Your task to perform on an android device: allow cookies in the chrome app Image 0: 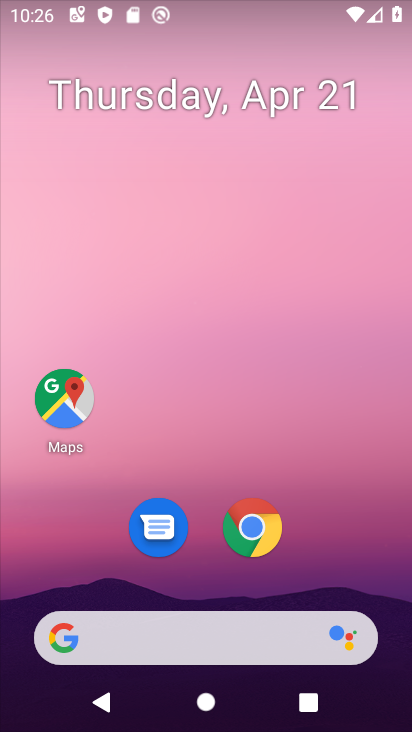
Step 0: drag from (337, 543) to (327, 50)
Your task to perform on an android device: allow cookies in the chrome app Image 1: 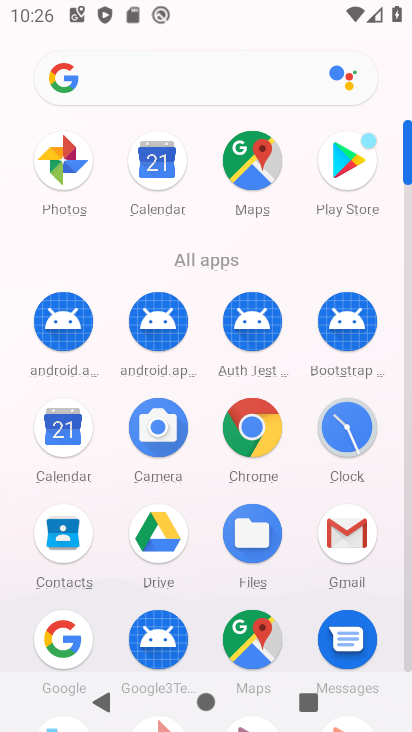
Step 1: click (267, 452)
Your task to perform on an android device: allow cookies in the chrome app Image 2: 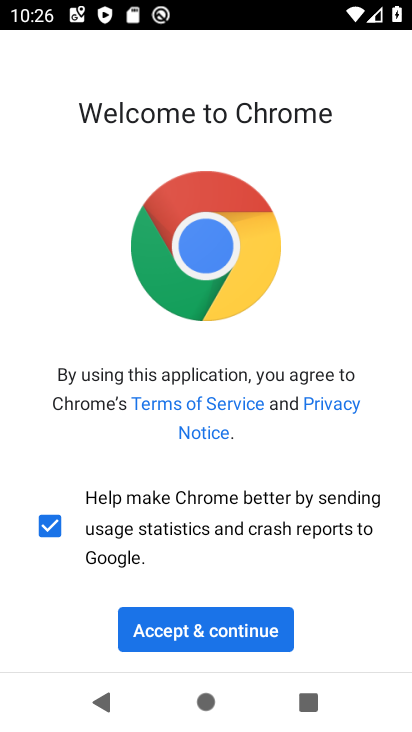
Step 2: click (199, 632)
Your task to perform on an android device: allow cookies in the chrome app Image 3: 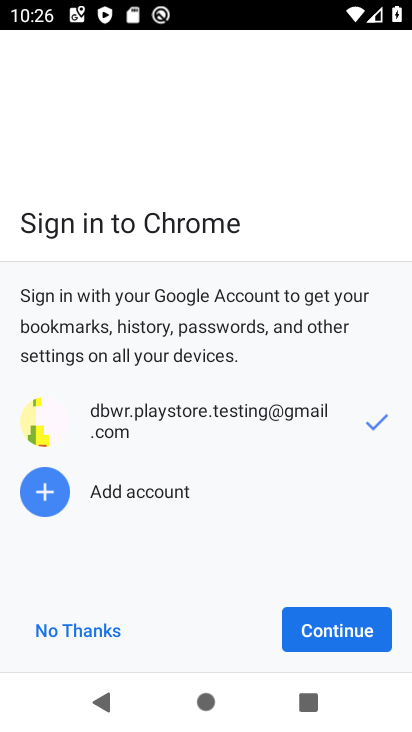
Step 3: click (326, 635)
Your task to perform on an android device: allow cookies in the chrome app Image 4: 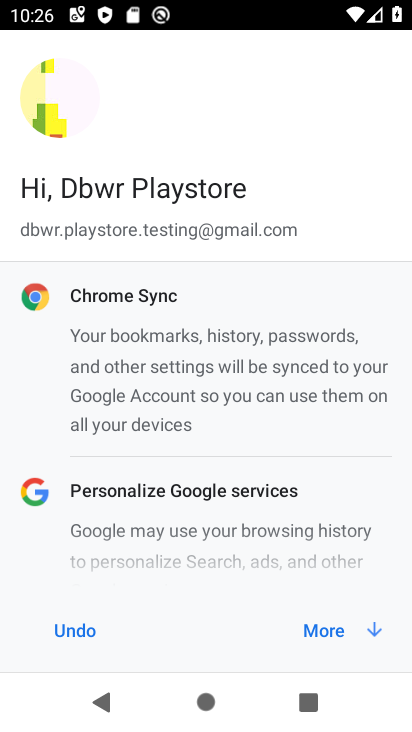
Step 4: click (326, 633)
Your task to perform on an android device: allow cookies in the chrome app Image 5: 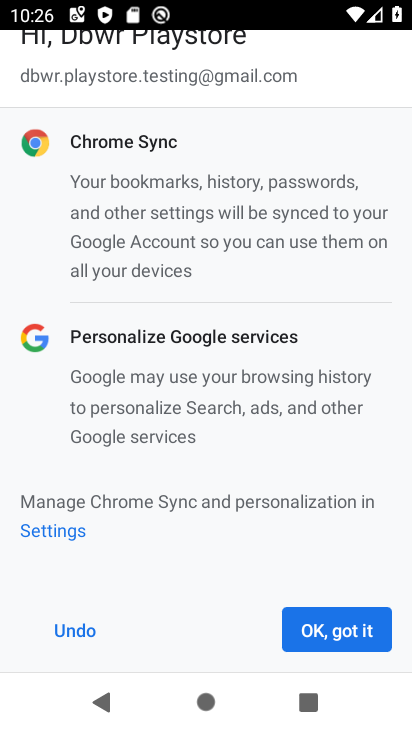
Step 5: click (328, 631)
Your task to perform on an android device: allow cookies in the chrome app Image 6: 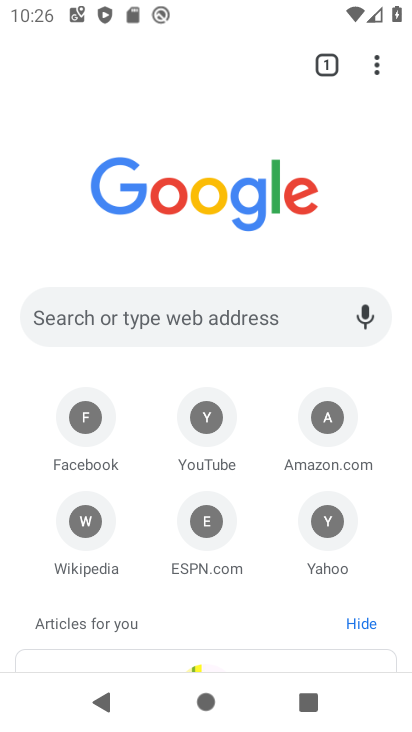
Step 6: drag from (373, 72) to (221, 552)
Your task to perform on an android device: allow cookies in the chrome app Image 7: 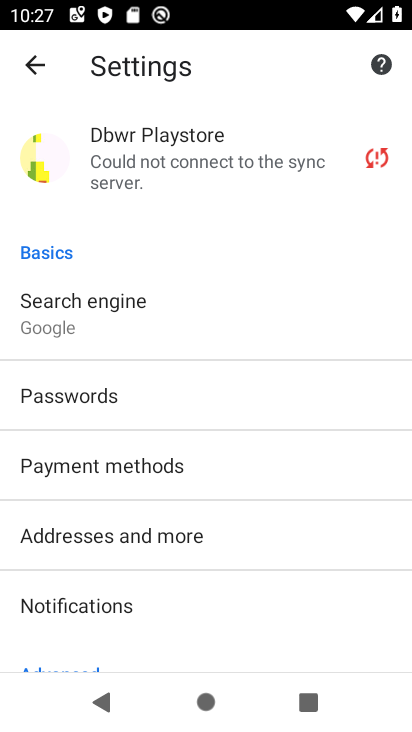
Step 7: drag from (142, 586) to (163, 304)
Your task to perform on an android device: allow cookies in the chrome app Image 8: 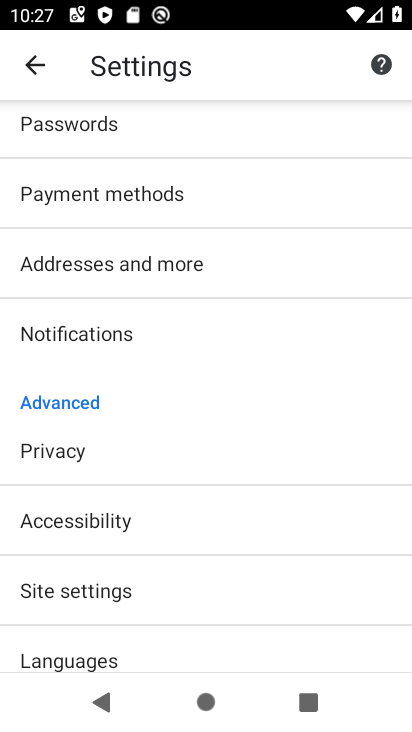
Step 8: click (108, 584)
Your task to perform on an android device: allow cookies in the chrome app Image 9: 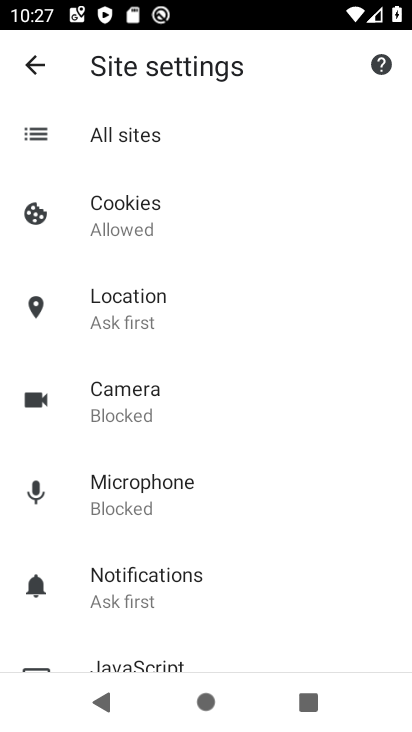
Step 9: click (160, 216)
Your task to perform on an android device: allow cookies in the chrome app Image 10: 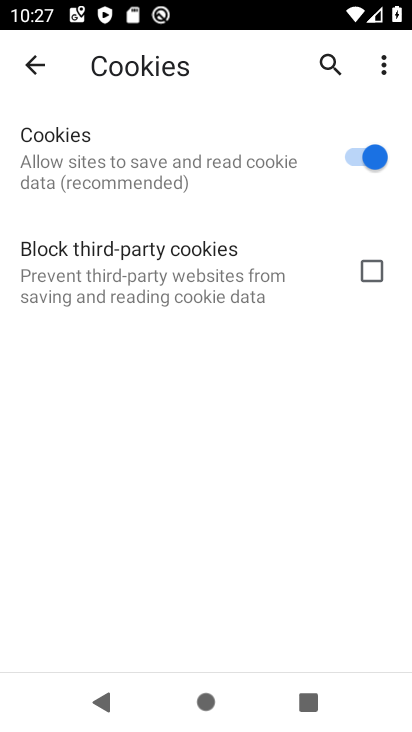
Step 10: task complete